Your task to perform on an android device: toggle show notifications on the lock screen Image 0: 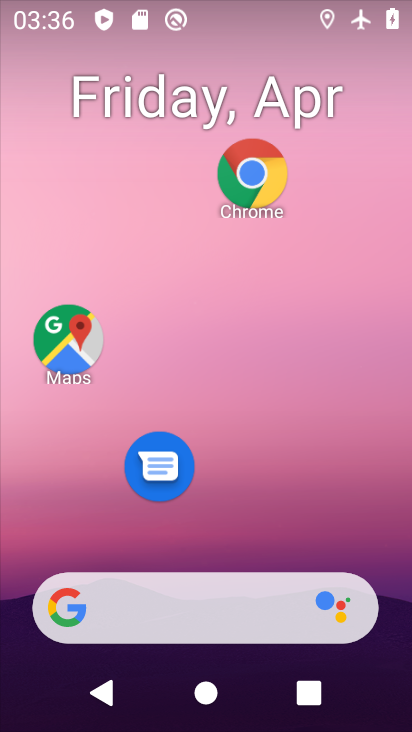
Step 0: drag from (211, 547) to (163, 79)
Your task to perform on an android device: toggle show notifications on the lock screen Image 1: 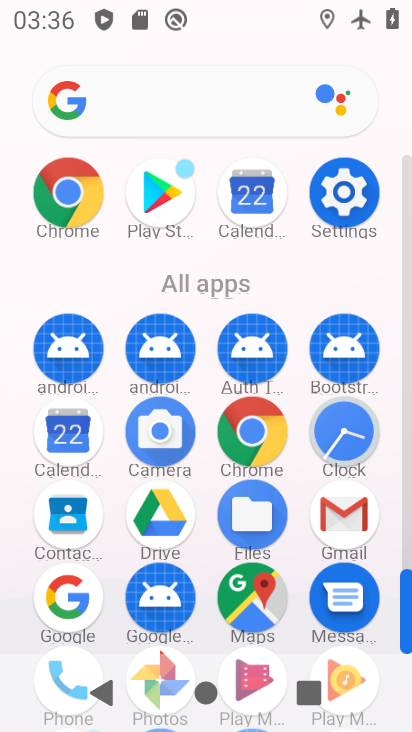
Step 1: click (329, 199)
Your task to perform on an android device: toggle show notifications on the lock screen Image 2: 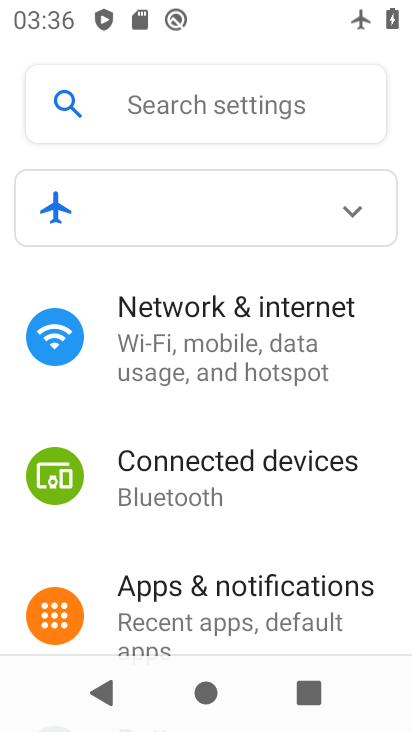
Step 2: drag from (171, 616) to (150, 243)
Your task to perform on an android device: toggle show notifications on the lock screen Image 3: 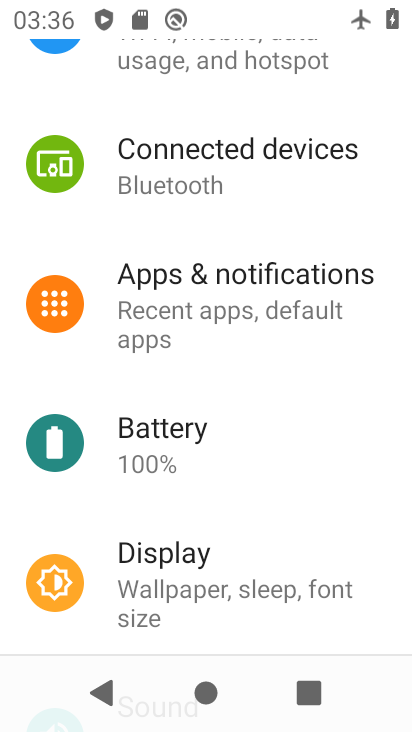
Step 3: click (238, 312)
Your task to perform on an android device: toggle show notifications on the lock screen Image 4: 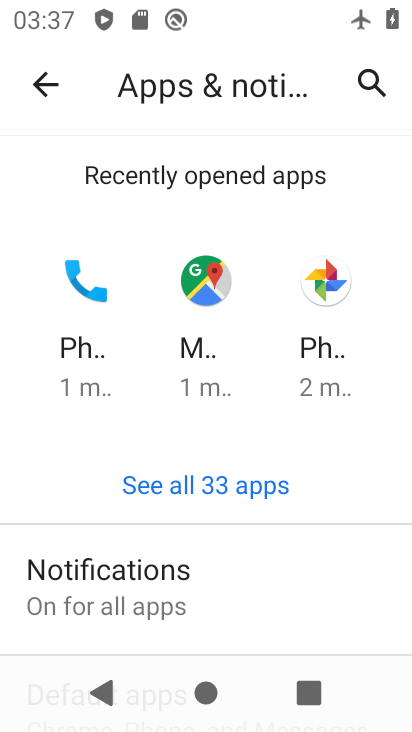
Step 4: drag from (174, 598) to (192, 312)
Your task to perform on an android device: toggle show notifications on the lock screen Image 5: 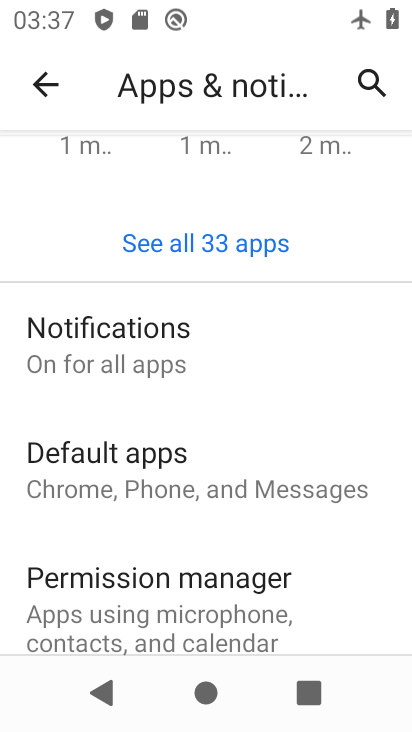
Step 5: click (163, 367)
Your task to perform on an android device: toggle show notifications on the lock screen Image 6: 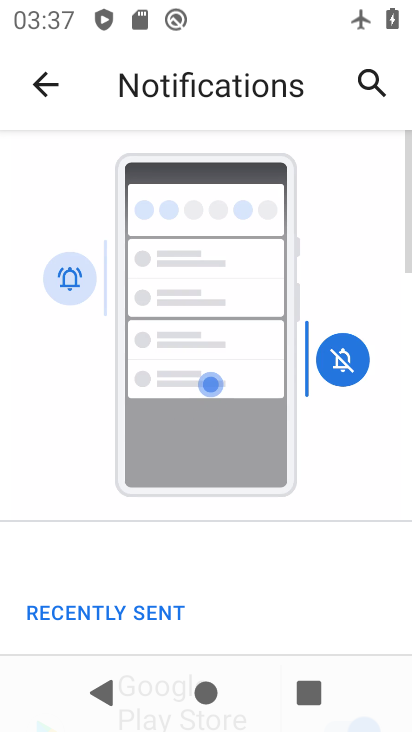
Step 6: drag from (166, 538) to (155, 192)
Your task to perform on an android device: toggle show notifications on the lock screen Image 7: 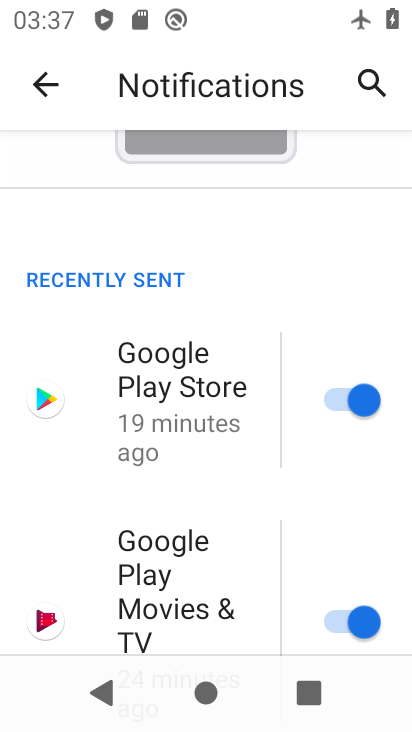
Step 7: drag from (180, 501) to (169, 132)
Your task to perform on an android device: toggle show notifications on the lock screen Image 8: 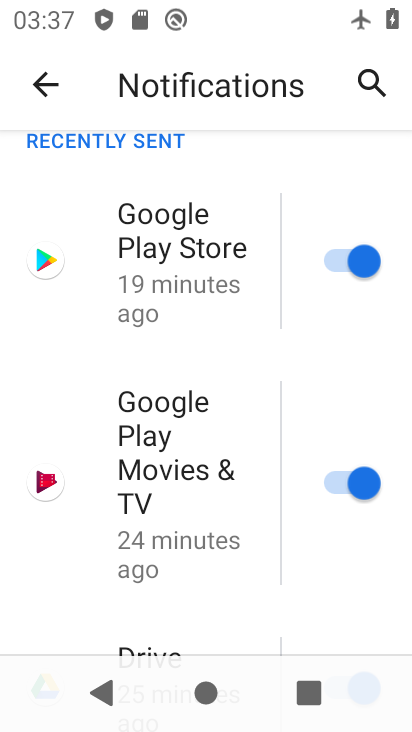
Step 8: drag from (188, 513) to (201, 88)
Your task to perform on an android device: toggle show notifications on the lock screen Image 9: 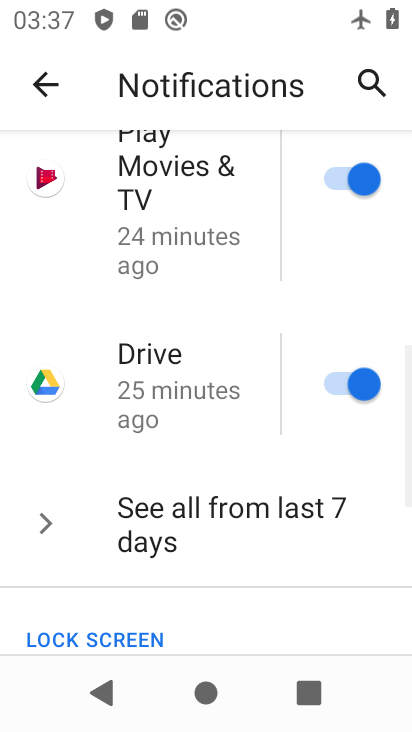
Step 9: drag from (204, 554) to (203, 153)
Your task to perform on an android device: toggle show notifications on the lock screen Image 10: 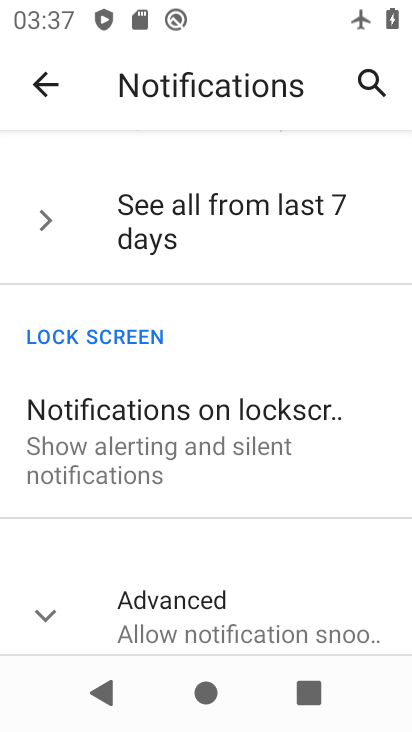
Step 10: click (175, 471)
Your task to perform on an android device: toggle show notifications on the lock screen Image 11: 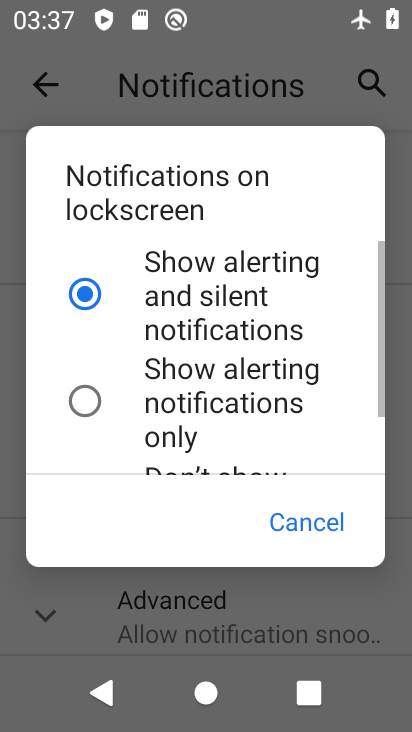
Step 11: drag from (154, 416) to (160, 182)
Your task to perform on an android device: toggle show notifications on the lock screen Image 12: 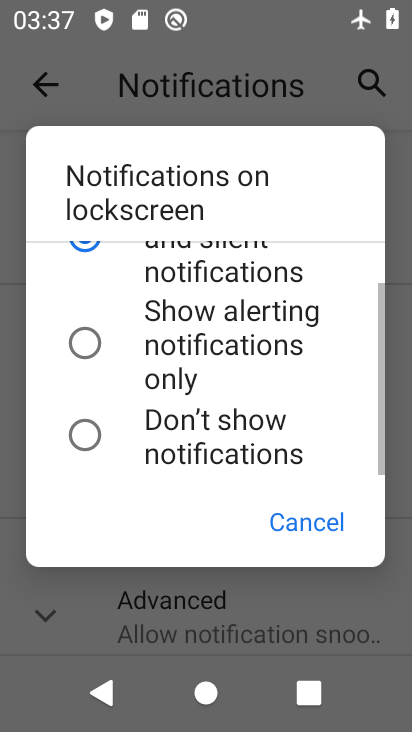
Step 12: click (127, 439)
Your task to perform on an android device: toggle show notifications on the lock screen Image 13: 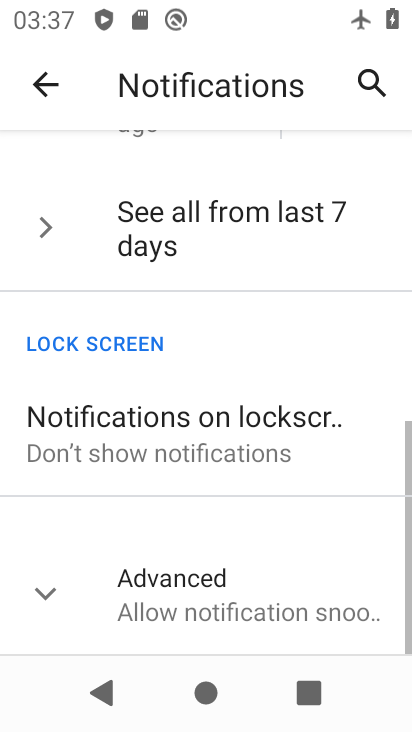
Step 13: task complete